Your task to perform on an android device: Turn off the flashlight Image 0: 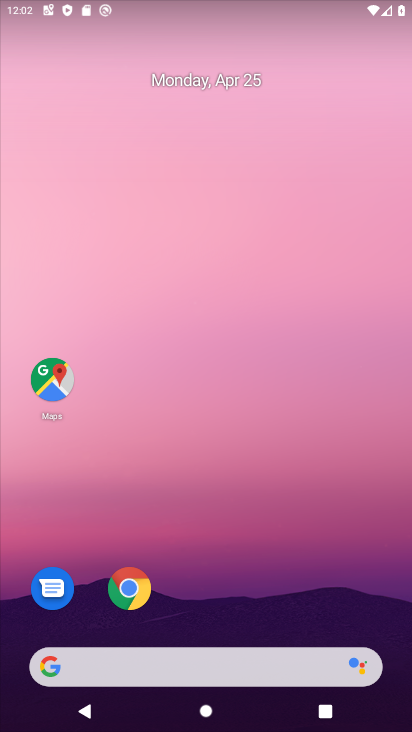
Step 0: drag from (229, 78) to (221, 590)
Your task to perform on an android device: Turn off the flashlight Image 1: 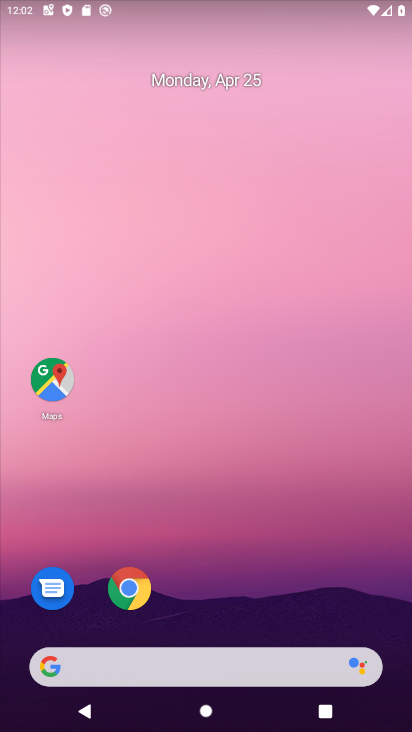
Step 1: task complete